Your task to perform on an android device: refresh tabs in the chrome app Image 0: 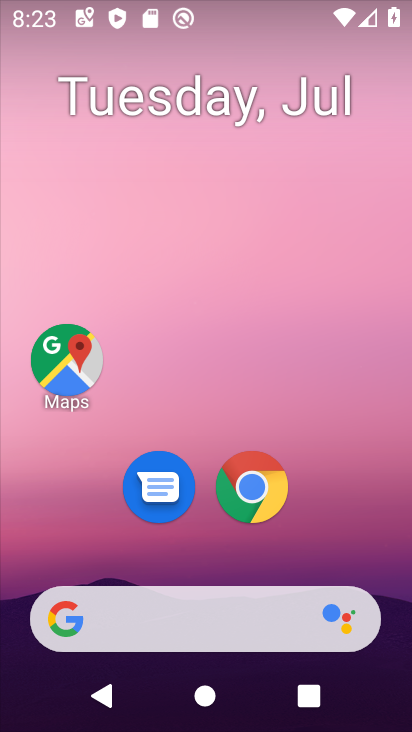
Step 0: click (257, 496)
Your task to perform on an android device: refresh tabs in the chrome app Image 1: 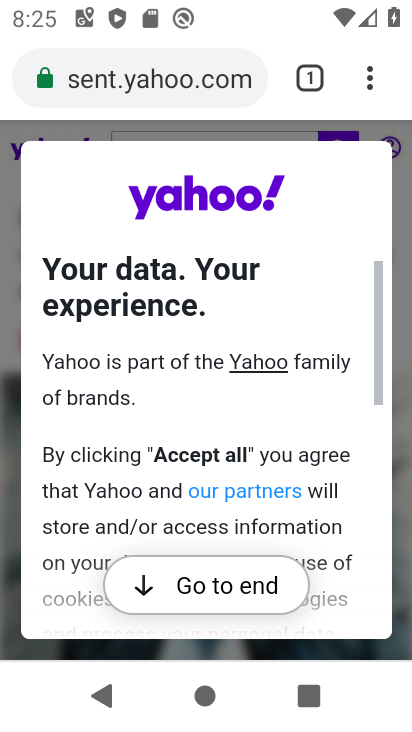
Step 1: click (378, 70)
Your task to perform on an android device: refresh tabs in the chrome app Image 2: 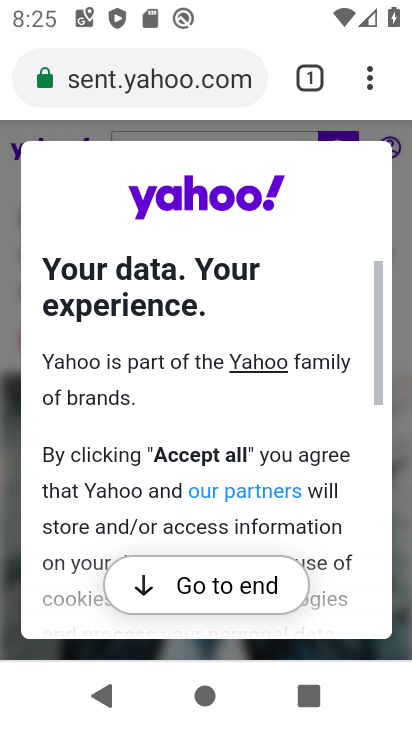
Step 2: task complete